Your task to perform on an android device: open device folders in google photos Image 0: 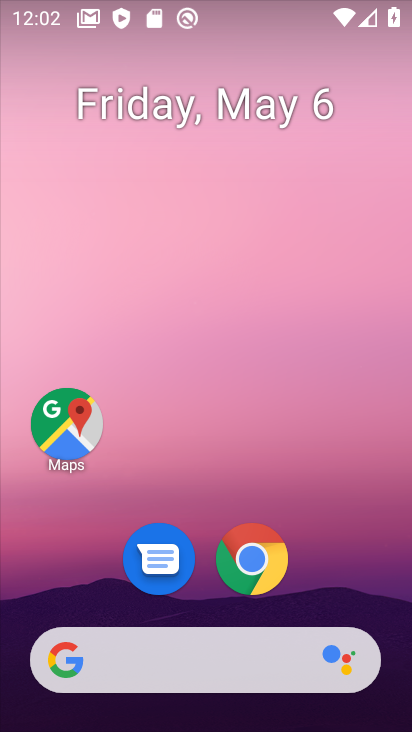
Step 0: drag from (310, 597) to (381, 156)
Your task to perform on an android device: open device folders in google photos Image 1: 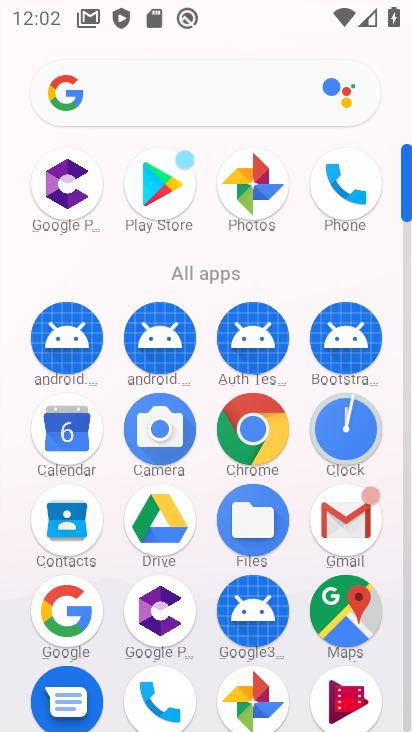
Step 1: click (238, 683)
Your task to perform on an android device: open device folders in google photos Image 2: 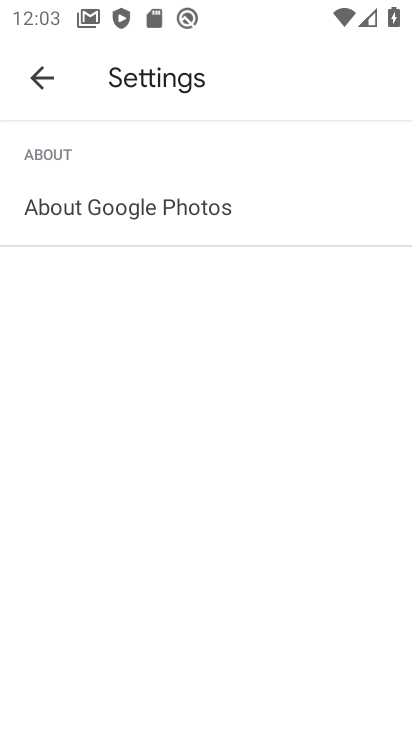
Step 2: click (23, 85)
Your task to perform on an android device: open device folders in google photos Image 3: 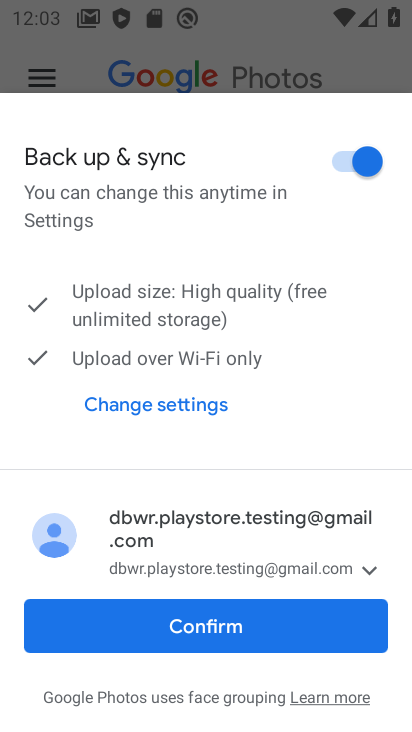
Step 3: click (179, 616)
Your task to perform on an android device: open device folders in google photos Image 4: 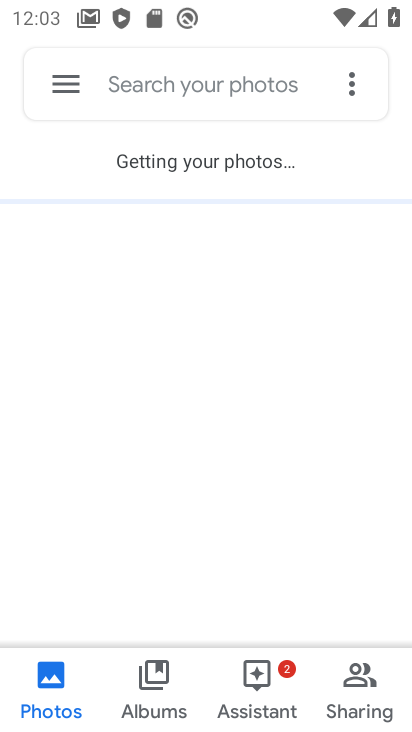
Step 4: click (59, 85)
Your task to perform on an android device: open device folders in google photos Image 5: 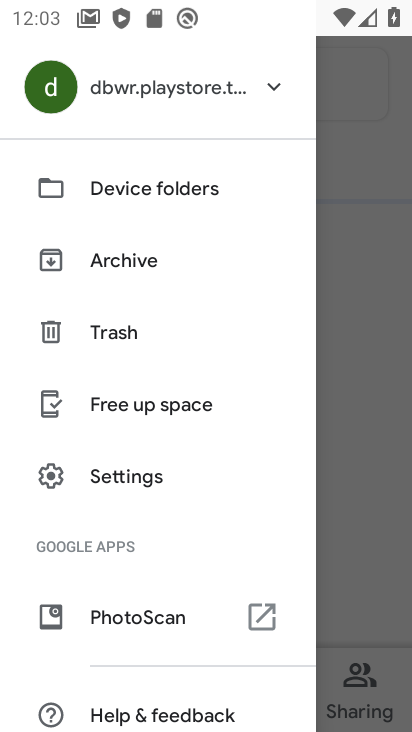
Step 5: click (142, 190)
Your task to perform on an android device: open device folders in google photos Image 6: 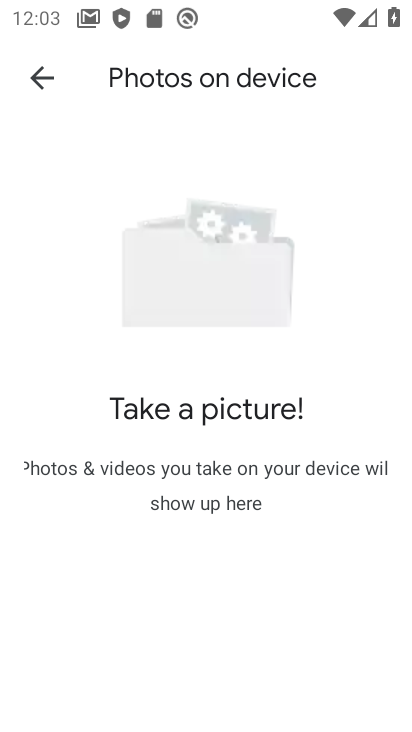
Step 6: task complete